Your task to perform on an android device: Open maps Image 0: 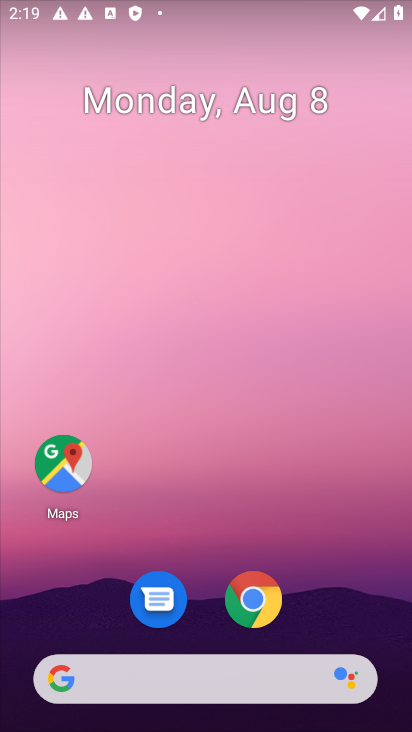
Step 0: click (50, 476)
Your task to perform on an android device: Open maps Image 1: 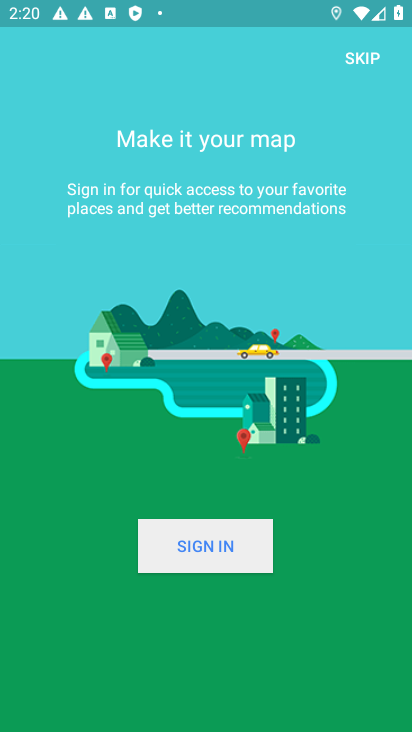
Step 1: click (369, 54)
Your task to perform on an android device: Open maps Image 2: 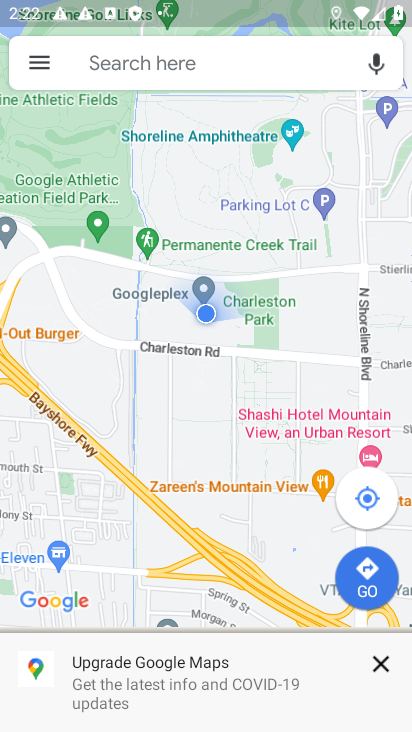
Step 2: task complete